Your task to perform on an android device: What's the weather going to be tomorrow? Image 0: 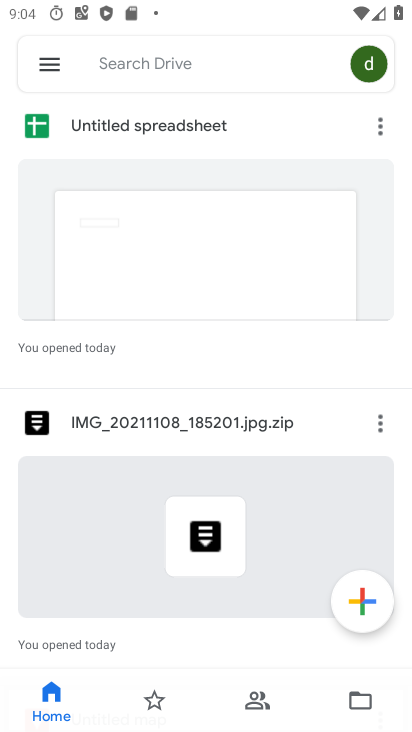
Step 0: press back button
Your task to perform on an android device: What's the weather going to be tomorrow? Image 1: 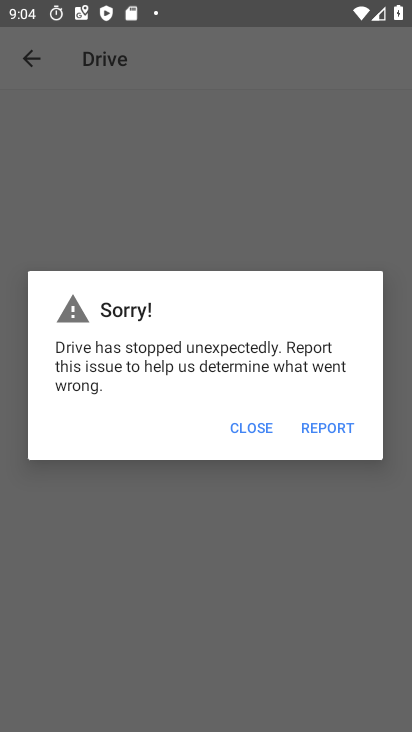
Step 1: press home button
Your task to perform on an android device: What's the weather going to be tomorrow? Image 2: 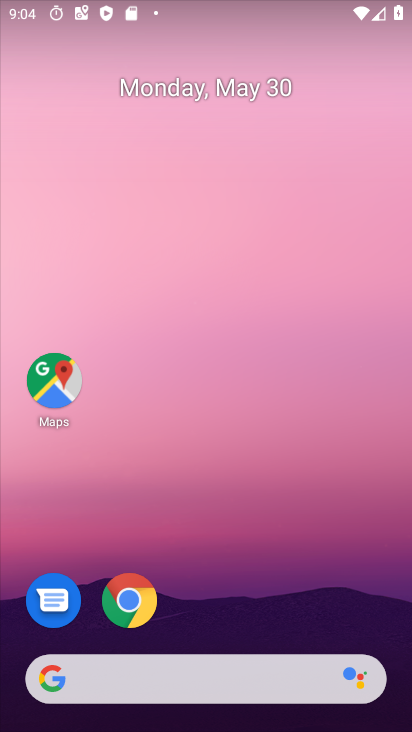
Step 2: drag from (259, 567) to (272, 14)
Your task to perform on an android device: What's the weather going to be tomorrow? Image 3: 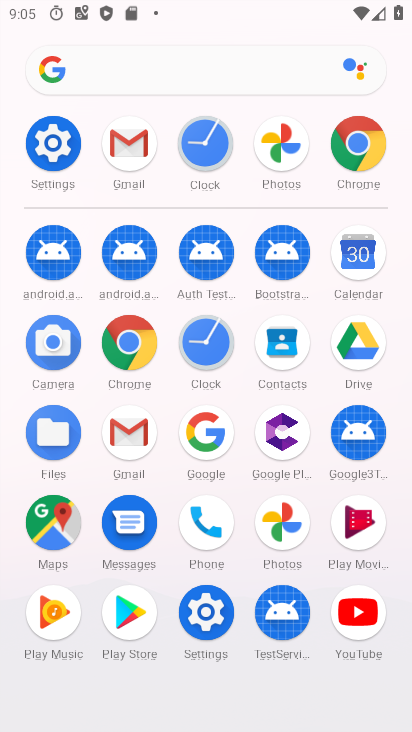
Step 3: click (128, 339)
Your task to perform on an android device: What's the weather going to be tomorrow? Image 4: 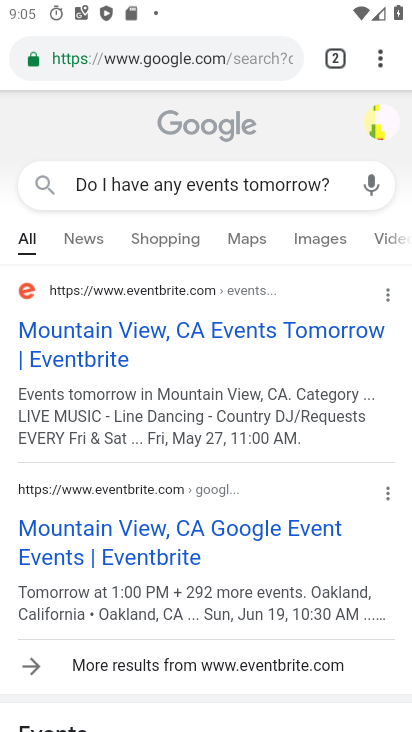
Step 4: click (217, 59)
Your task to perform on an android device: What's the weather going to be tomorrow? Image 5: 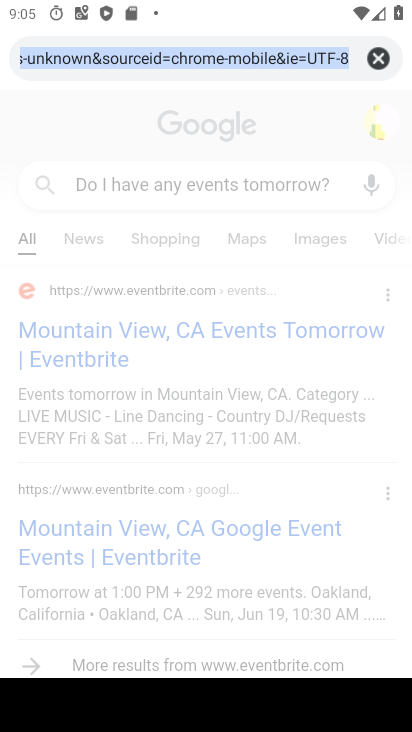
Step 5: click (373, 49)
Your task to perform on an android device: What's the weather going to be tomorrow? Image 6: 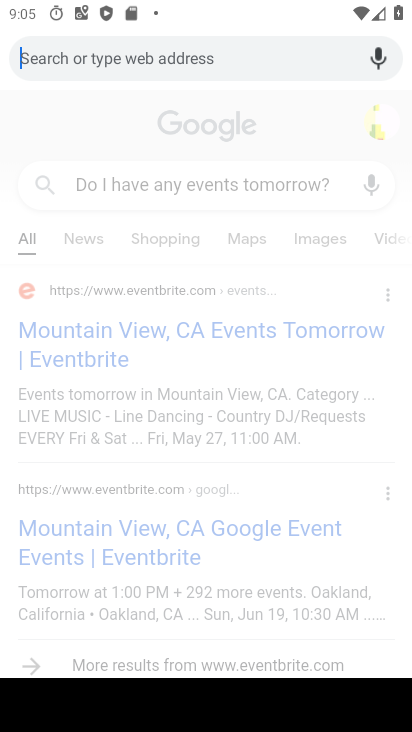
Step 6: type "What's the weather going to be tomorrow?"
Your task to perform on an android device: What's the weather going to be tomorrow? Image 7: 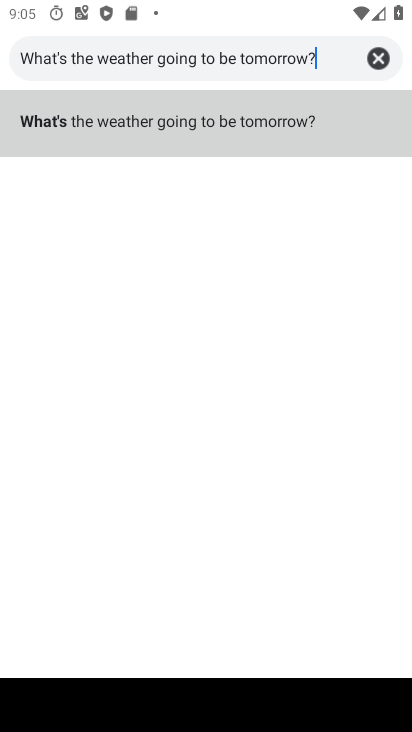
Step 7: type ""
Your task to perform on an android device: What's the weather going to be tomorrow? Image 8: 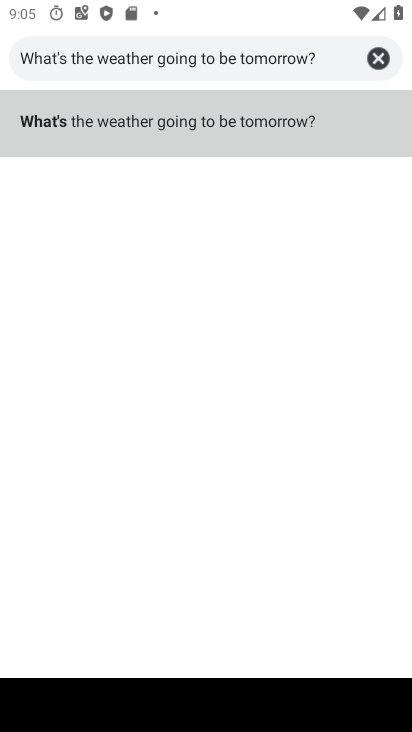
Step 8: click (200, 118)
Your task to perform on an android device: What's the weather going to be tomorrow? Image 9: 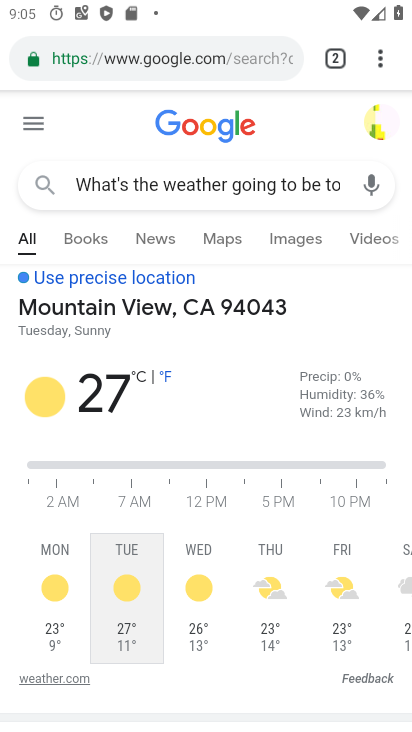
Step 9: task complete